Your task to perform on an android device: toggle data saver in the chrome app Image 0: 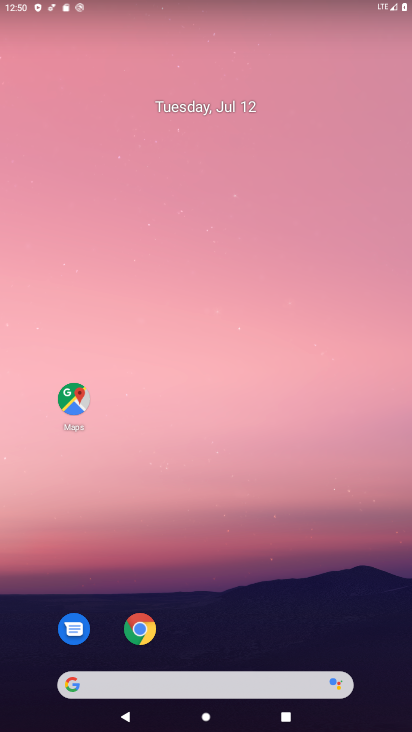
Step 0: drag from (273, 709) to (336, 13)
Your task to perform on an android device: toggle data saver in the chrome app Image 1: 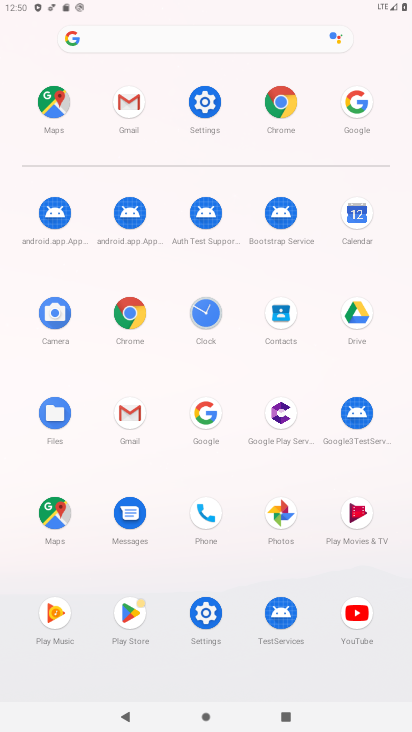
Step 1: click (137, 309)
Your task to perform on an android device: toggle data saver in the chrome app Image 2: 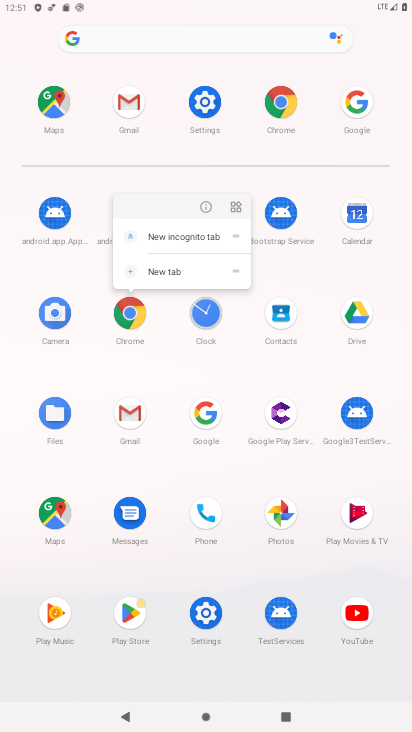
Step 2: click (123, 314)
Your task to perform on an android device: toggle data saver in the chrome app Image 3: 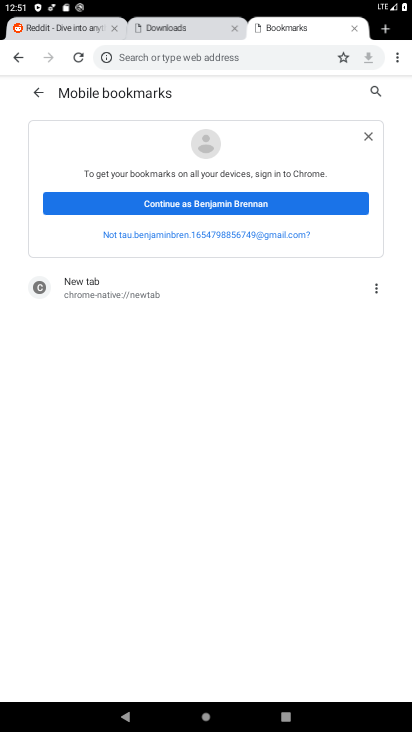
Step 3: drag from (397, 54) to (265, 261)
Your task to perform on an android device: toggle data saver in the chrome app Image 4: 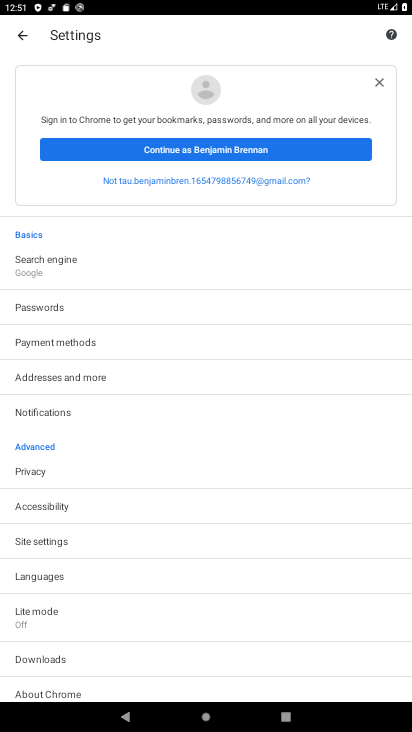
Step 4: click (63, 613)
Your task to perform on an android device: toggle data saver in the chrome app Image 5: 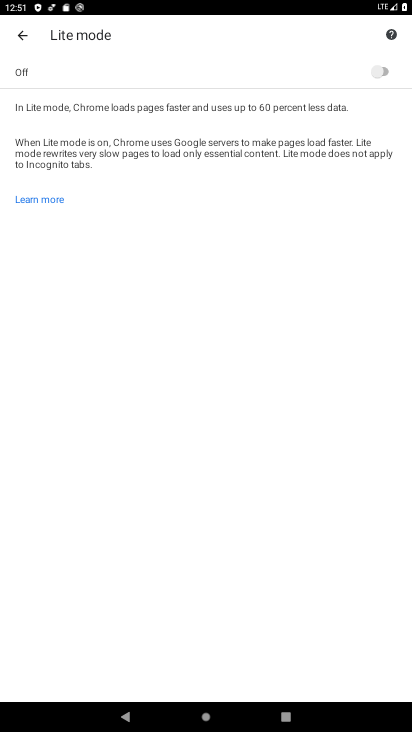
Step 5: click (386, 65)
Your task to perform on an android device: toggle data saver in the chrome app Image 6: 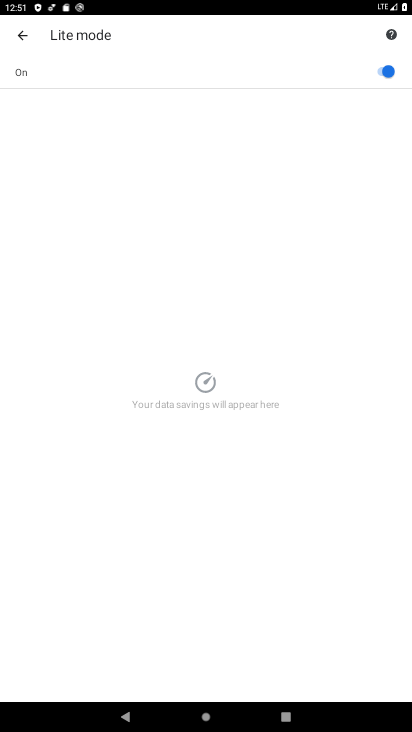
Step 6: task complete